Your task to perform on an android device: toggle notification dots Image 0: 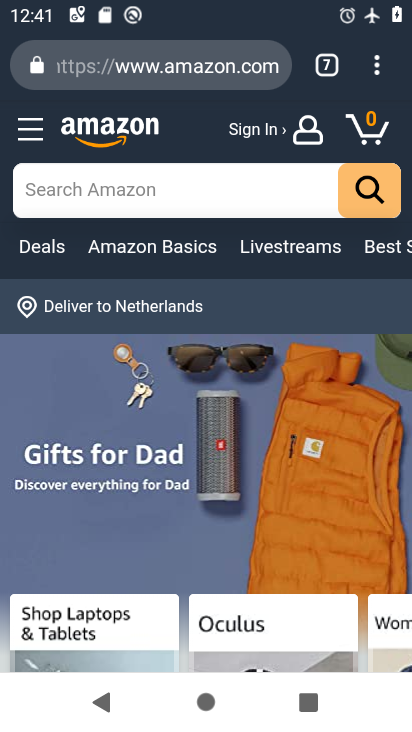
Step 0: press home button
Your task to perform on an android device: toggle notification dots Image 1: 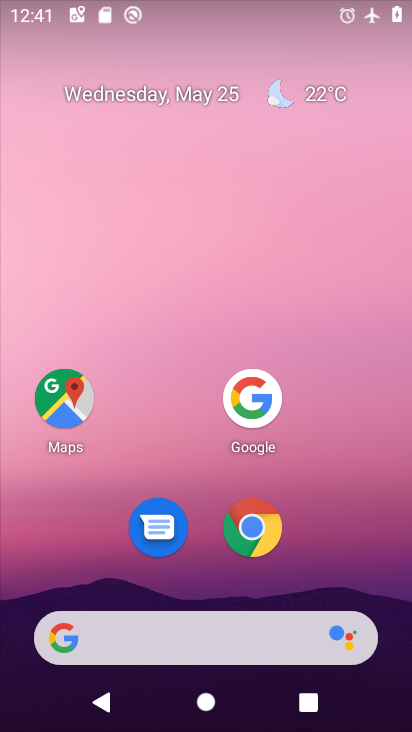
Step 1: drag from (192, 654) to (317, 89)
Your task to perform on an android device: toggle notification dots Image 2: 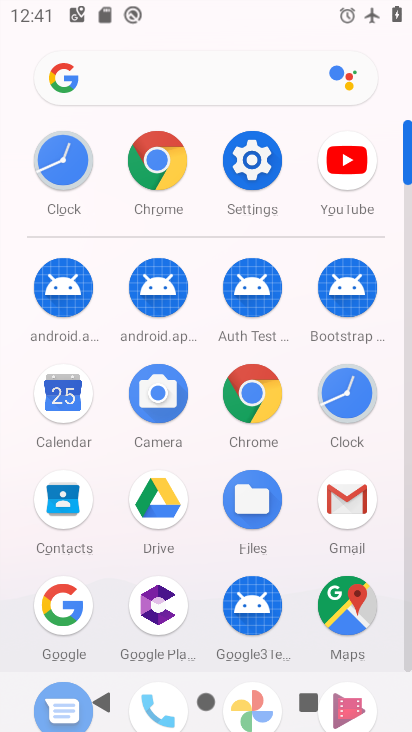
Step 2: click (249, 168)
Your task to perform on an android device: toggle notification dots Image 3: 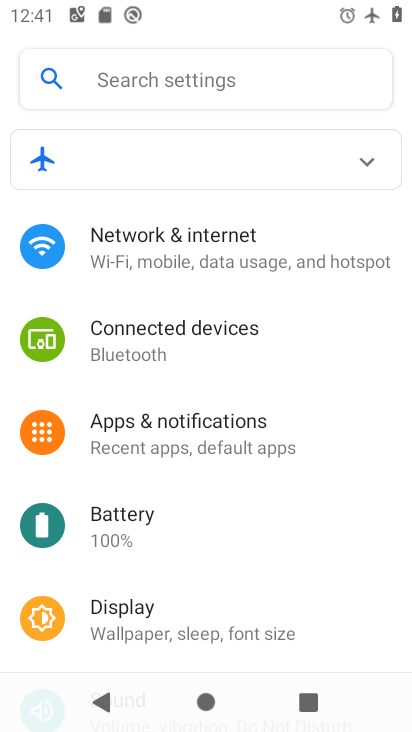
Step 3: click (246, 443)
Your task to perform on an android device: toggle notification dots Image 4: 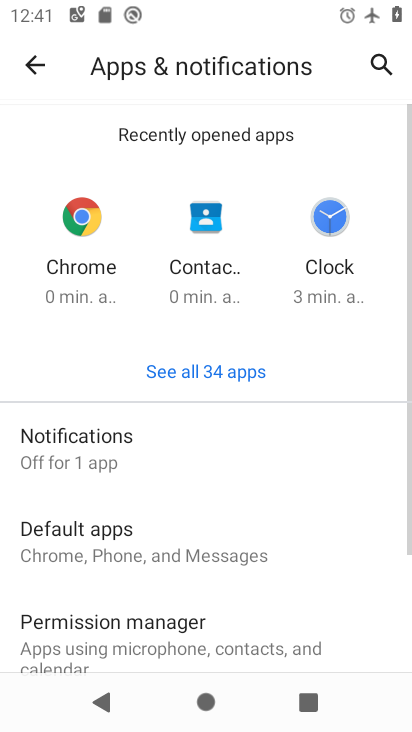
Step 4: drag from (243, 614) to (333, 189)
Your task to perform on an android device: toggle notification dots Image 5: 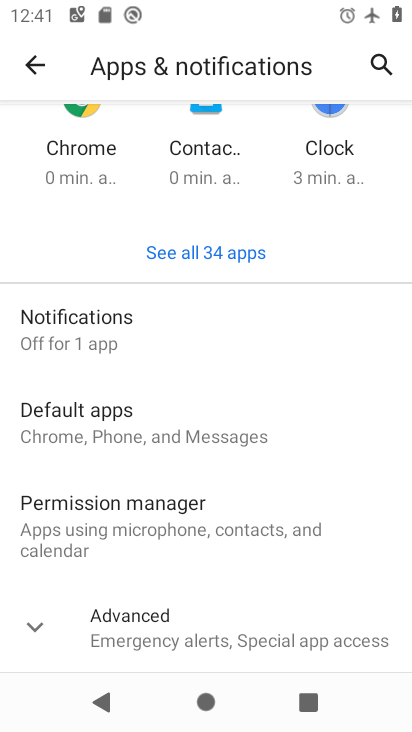
Step 5: drag from (228, 592) to (269, 495)
Your task to perform on an android device: toggle notification dots Image 6: 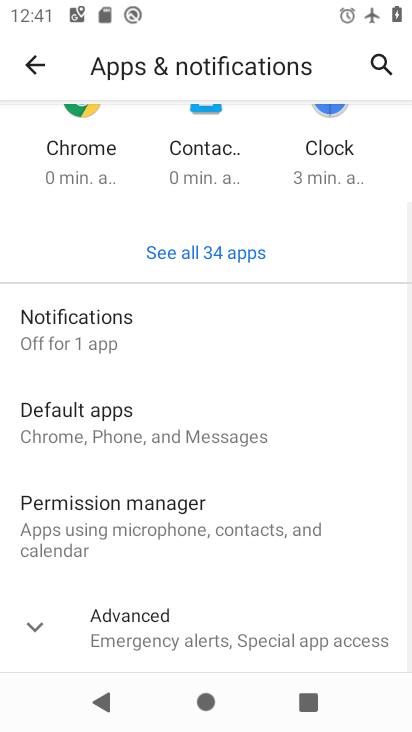
Step 6: click (127, 341)
Your task to perform on an android device: toggle notification dots Image 7: 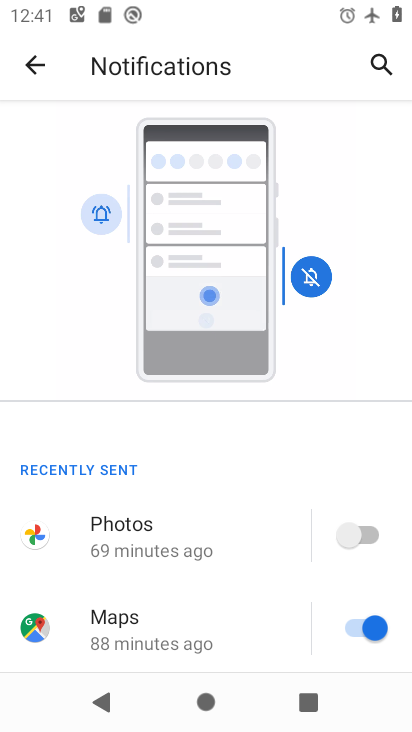
Step 7: drag from (255, 567) to (394, 93)
Your task to perform on an android device: toggle notification dots Image 8: 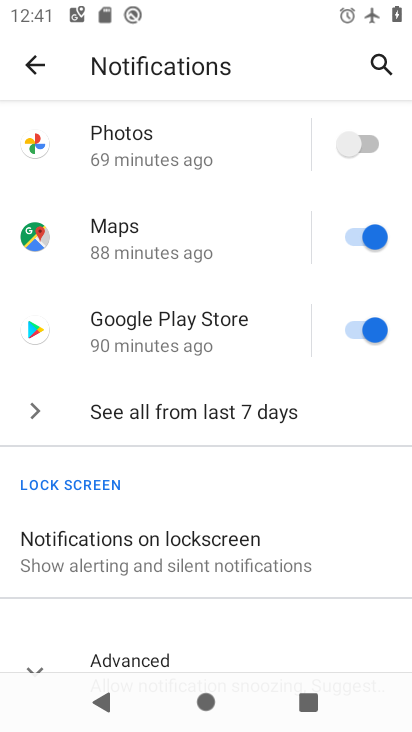
Step 8: drag from (218, 606) to (360, 169)
Your task to perform on an android device: toggle notification dots Image 9: 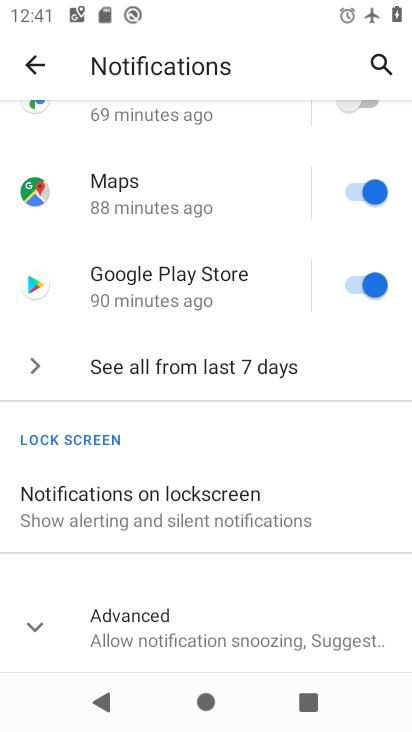
Step 9: click (198, 640)
Your task to perform on an android device: toggle notification dots Image 10: 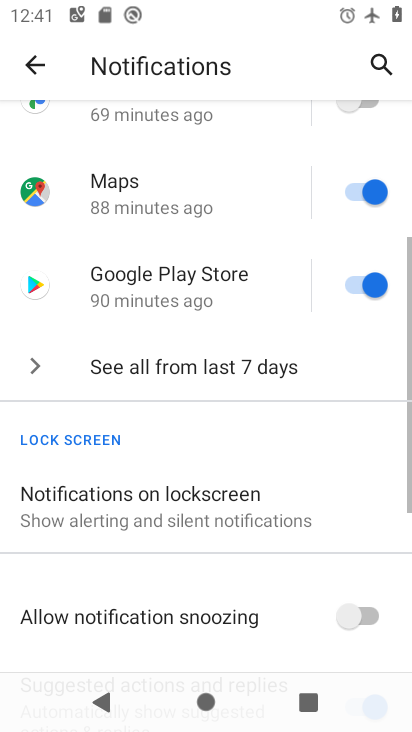
Step 10: drag from (198, 640) to (340, 122)
Your task to perform on an android device: toggle notification dots Image 11: 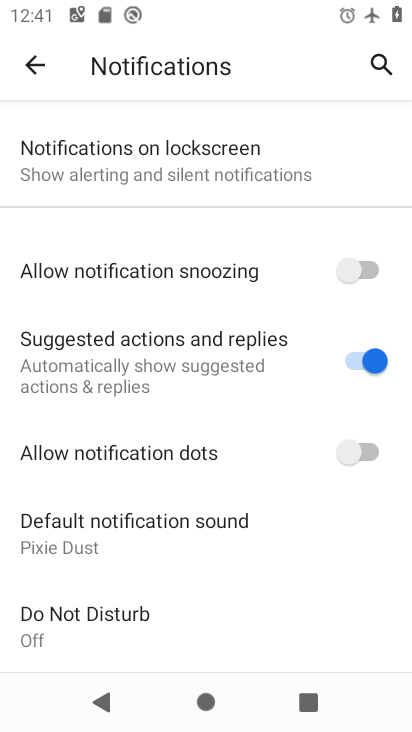
Step 11: click (374, 456)
Your task to perform on an android device: toggle notification dots Image 12: 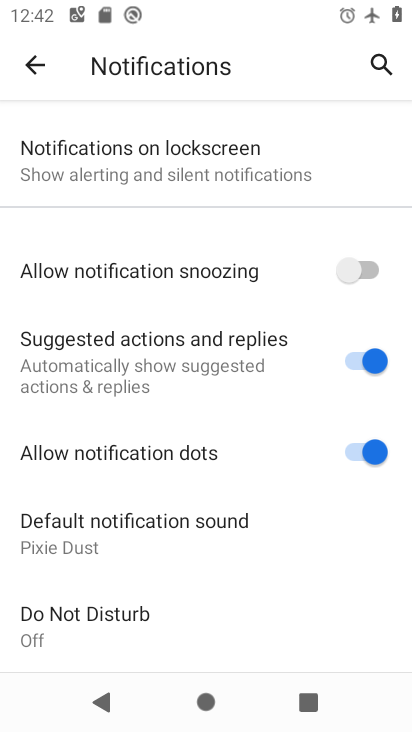
Step 12: task complete